Your task to perform on an android device: change alarm snooze length Image 0: 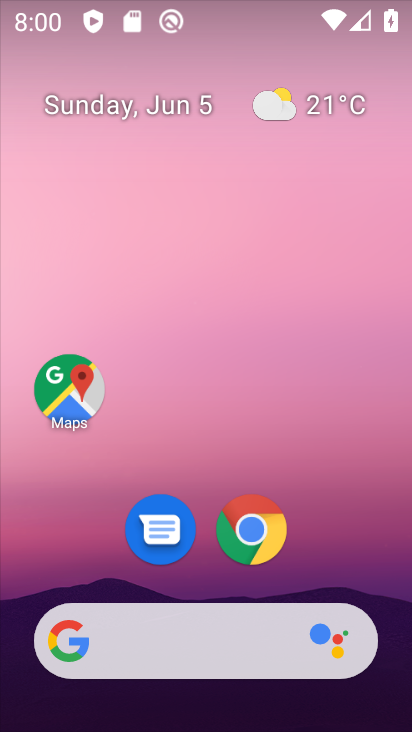
Step 0: drag from (241, 705) to (253, 8)
Your task to perform on an android device: change alarm snooze length Image 1: 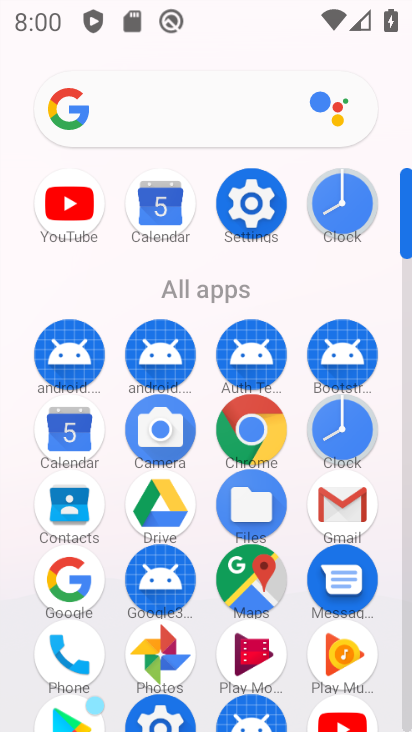
Step 1: click (334, 194)
Your task to perform on an android device: change alarm snooze length Image 2: 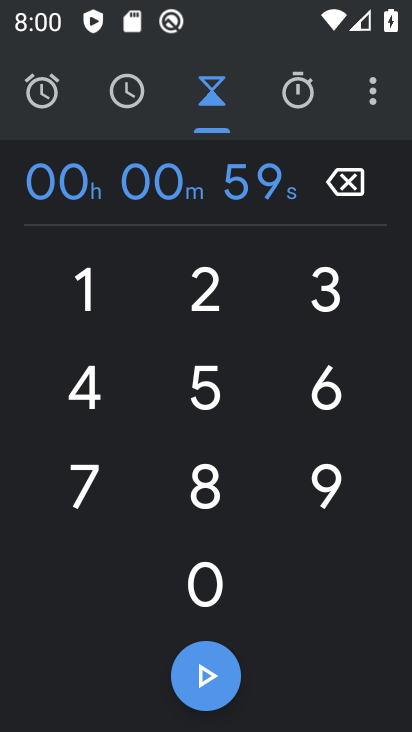
Step 2: click (379, 86)
Your task to perform on an android device: change alarm snooze length Image 3: 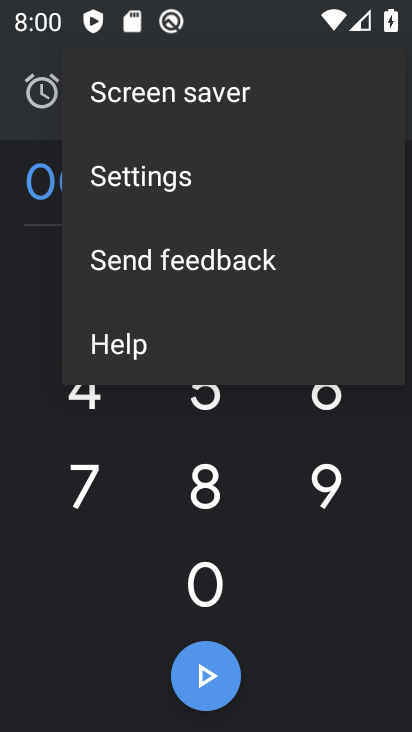
Step 3: click (101, 168)
Your task to perform on an android device: change alarm snooze length Image 4: 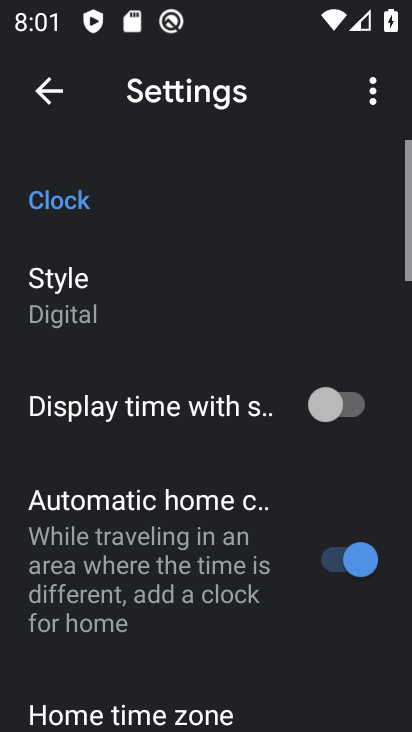
Step 4: drag from (169, 564) to (166, 57)
Your task to perform on an android device: change alarm snooze length Image 5: 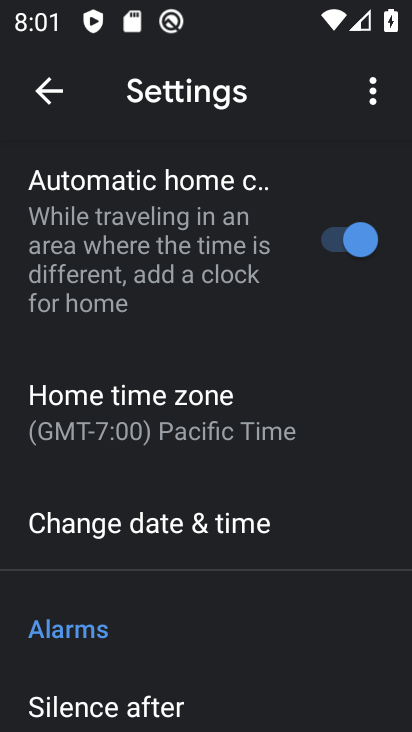
Step 5: drag from (245, 675) to (237, 97)
Your task to perform on an android device: change alarm snooze length Image 6: 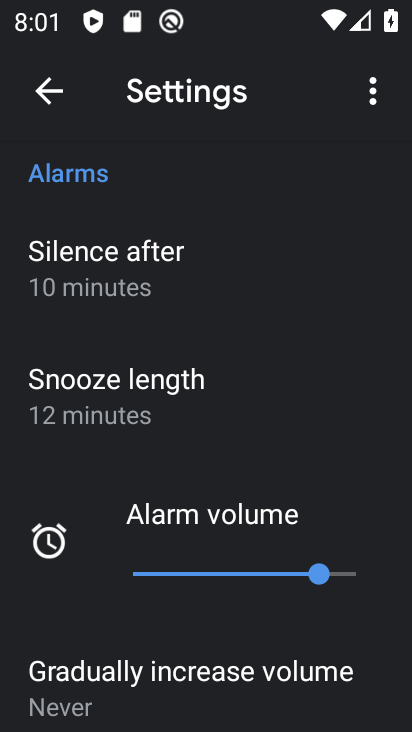
Step 6: click (176, 428)
Your task to perform on an android device: change alarm snooze length Image 7: 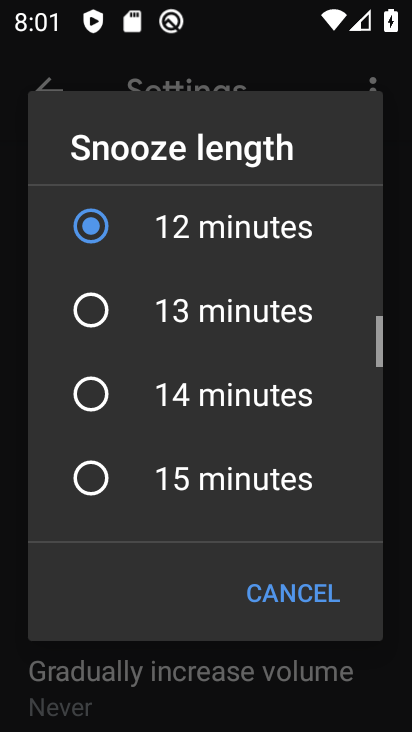
Step 7: click (236, 497)
Your task to perform on an android device: change alarm snooze length Image 8: 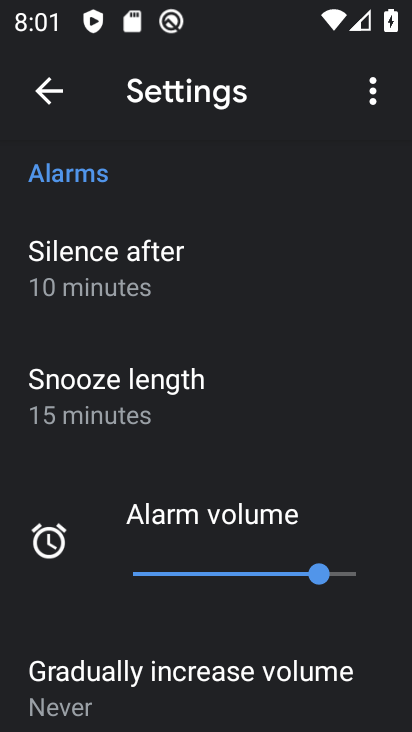
Step 8: task complete